Your task to perform on an android device: What is the news today? Image 0: 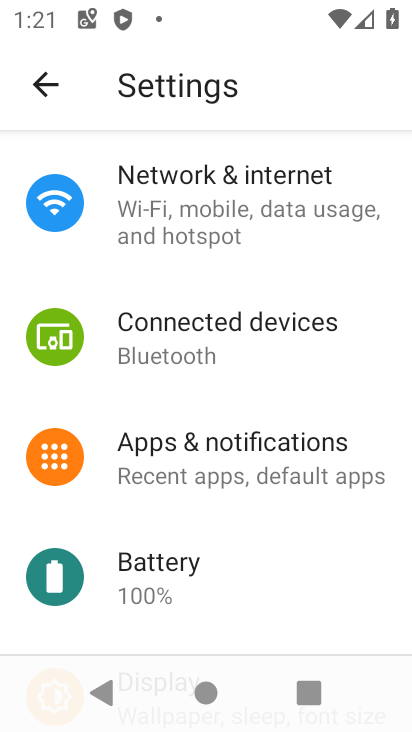
Step 0: press home button
Your task to perform on an android device: What is the news today? Image 1: 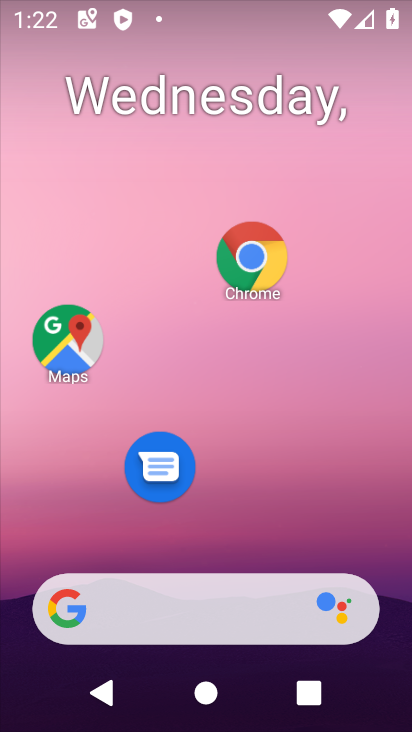
Step 1: drag from (274, 541) to (255, 613)
Your task to perform on an android device: What is the news today? Image 2: 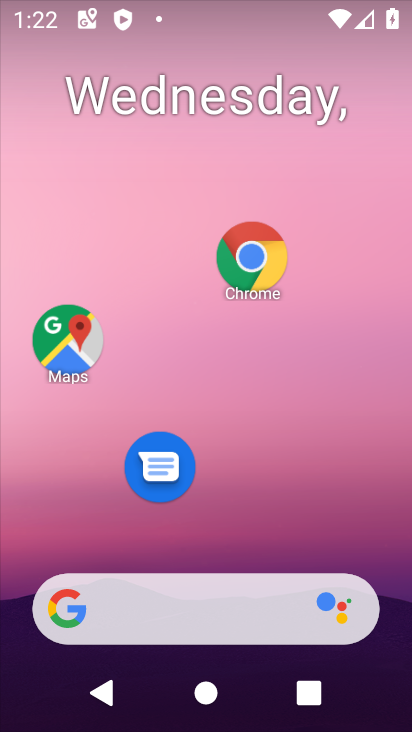
Step 2: click (282, 260)
Your task to perform on an android device: What is the news today? Image 3: 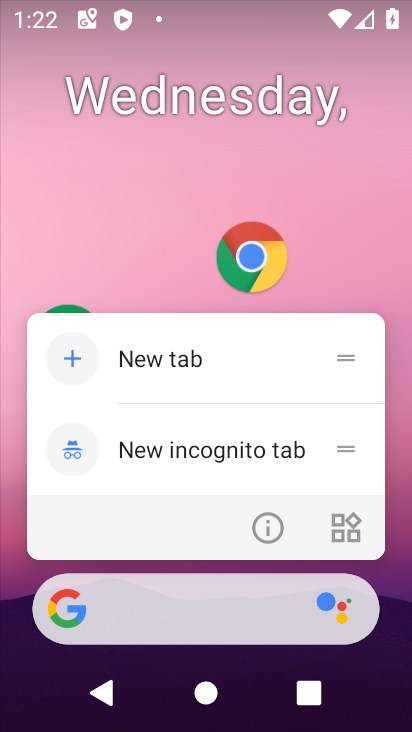
Step 3: click (254, 267)
Your task to perform on an android device: What is the news today? Image 4: 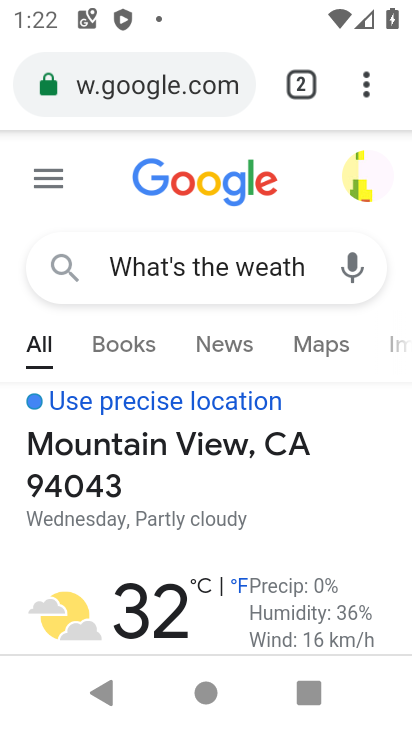
Step 4: click (206, 76)
Your task to perform on an android device: What is the news today? Image 5: 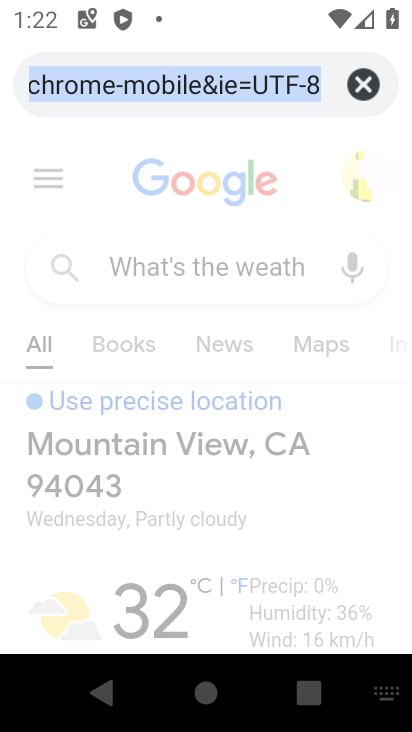
Step 5: click (356, 79)
Your task to perform on an android device: What is the news today? Image 6: 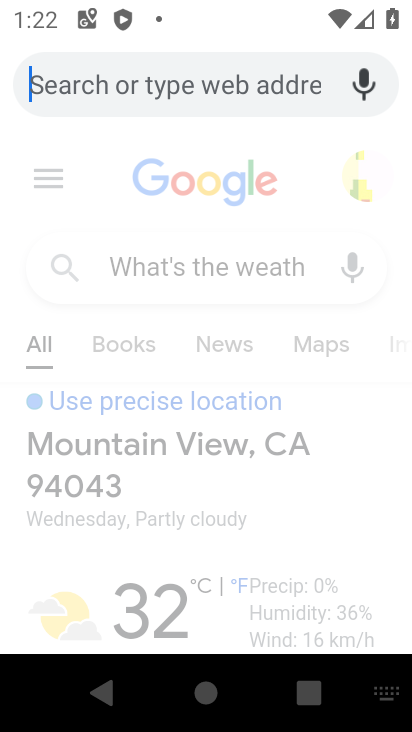
Step 6: type "What is the news today?"
Your task to perform on an android device: What is the news today? Image 7: 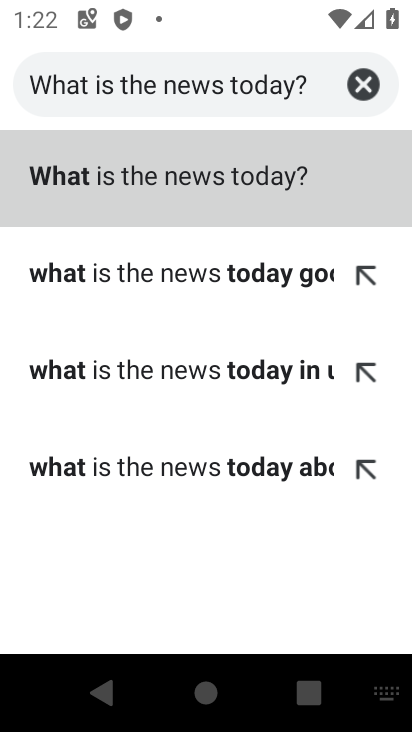
Step 7: click (83, 177)
Your task to perform on an android device: What is the news today? Image 8: 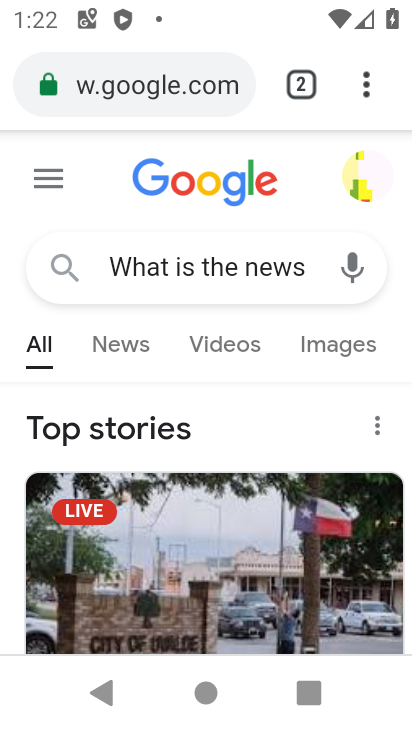
Step 8: task complete